Your task to perform on an android device: all mails in gmail Image 0: 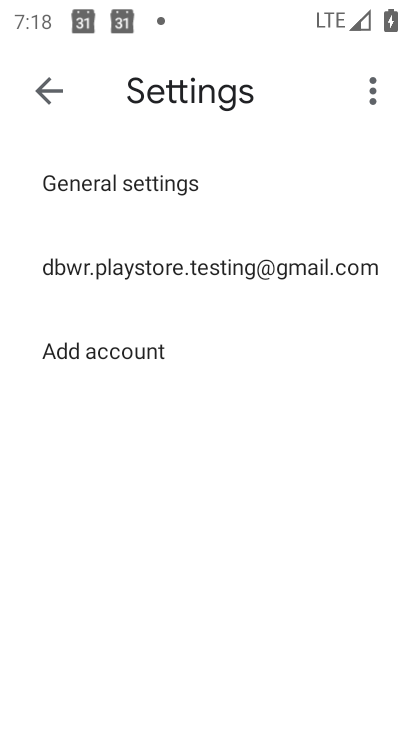
Step 0: press home button
Your task to perform on an android device: all mails in gmail Image 1: 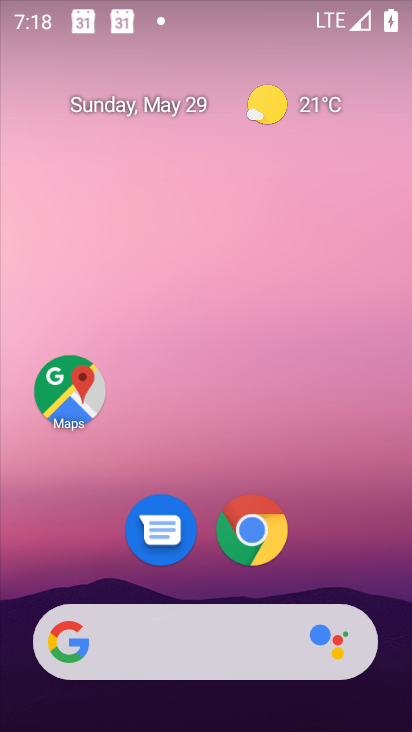
Step 1: drag from (255, 695) to (205, 141)
Your task to perform on an android device: all mails in gmail Image 2: 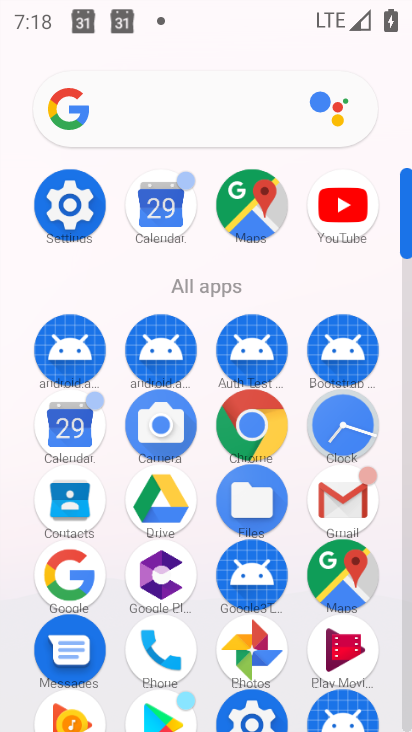
Step 2: click (353, 505)
Your task to perform on an android device: all mails in gmail Image 3: 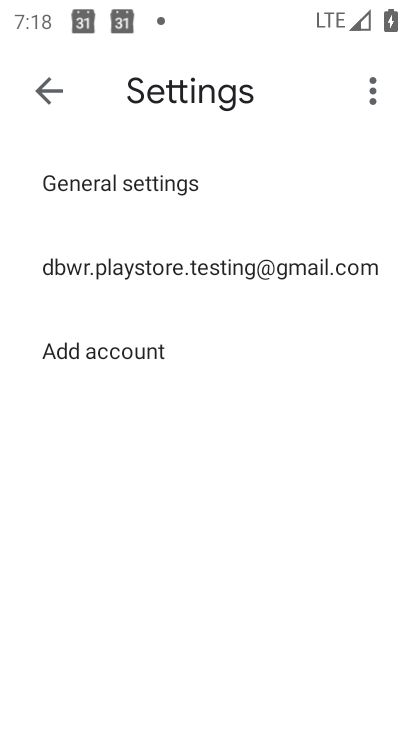
Step 3: click (52, 106)
Your task to perform on an android device: all mails in gmail Image 4: 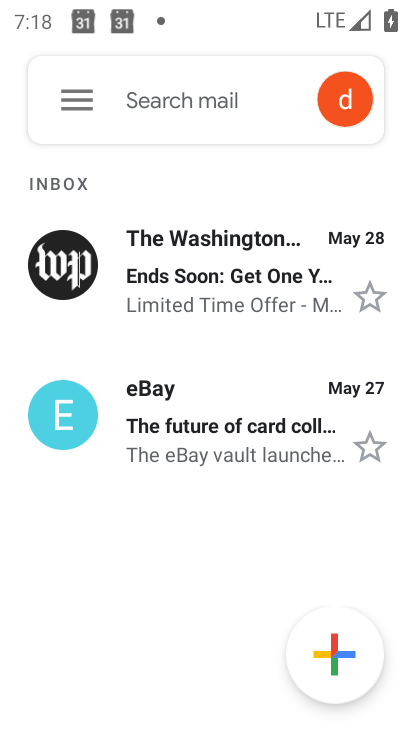
Step 4: click (75, 107)
Your task to perform on an android device: all mails in gmail Image 5: 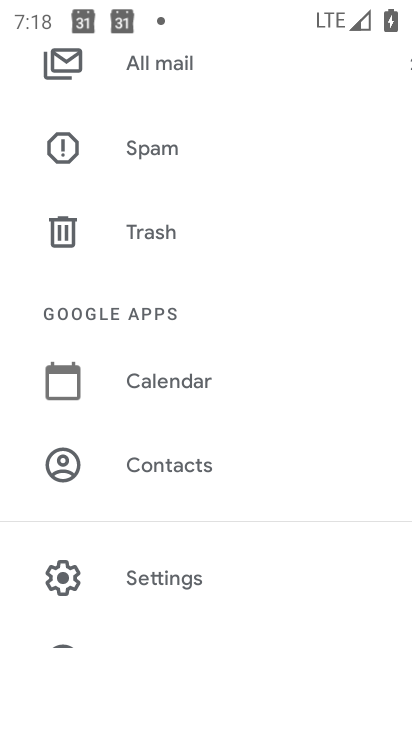
Step 5: click (184, 583)
Your task to perform on an android device: all mails in gmail Image 6: 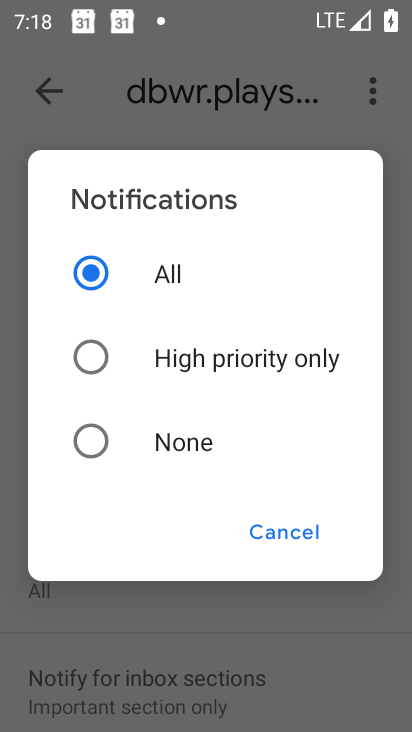
Step 6: click (288, 527)
Your task to perform on an android device: all mails in gmail Image 7: 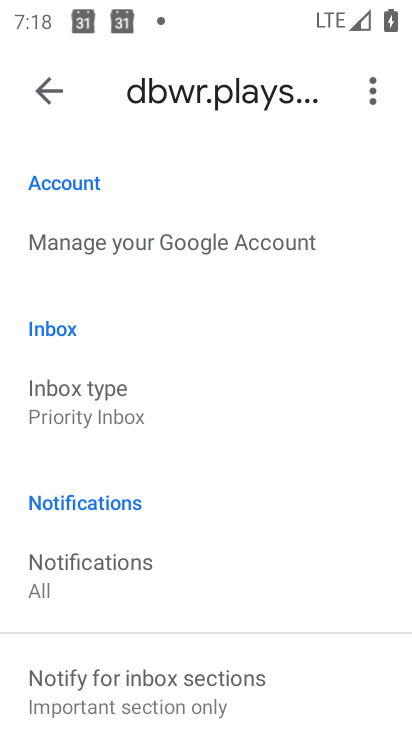
Step 7: click (52, 75)
Your task to perform on an android device: all mails in gmail Image 8: 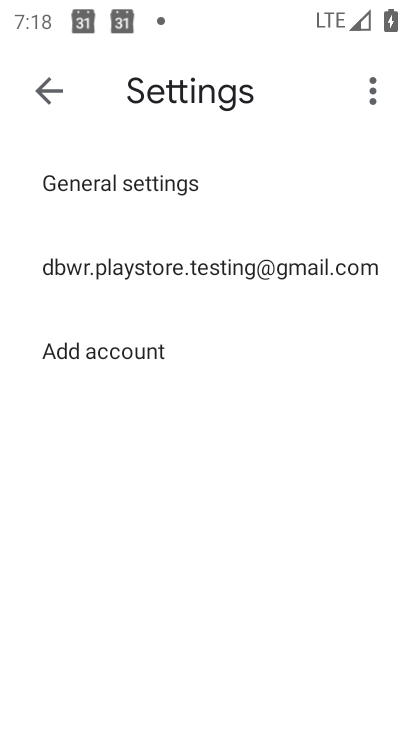
Step 8: click (52, 75)
Your task to perform on an android device: all mails in gmail Image 9: 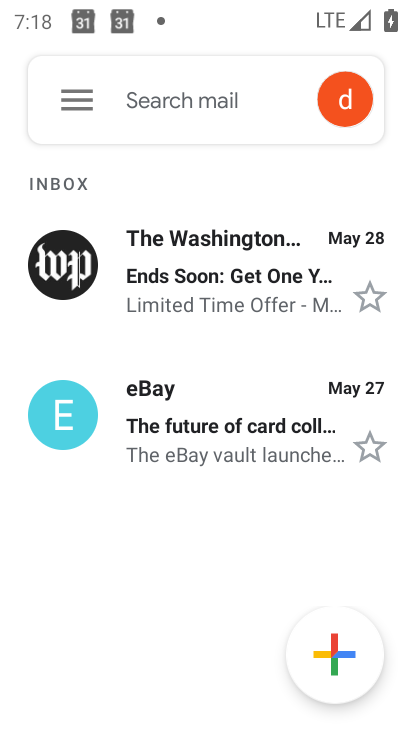
Step 9: click (87, 105)
Your task to perform on an android device: all mails in gmail Image 10: 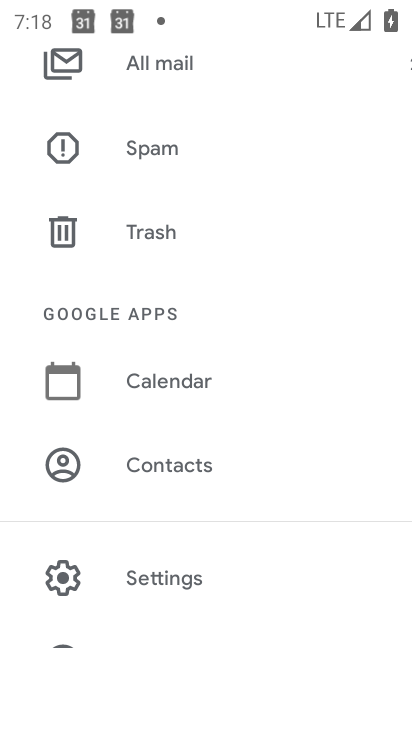
Step 10: click (165, 72)
Your task to perform on an android device: all mails in gmail Image 11: 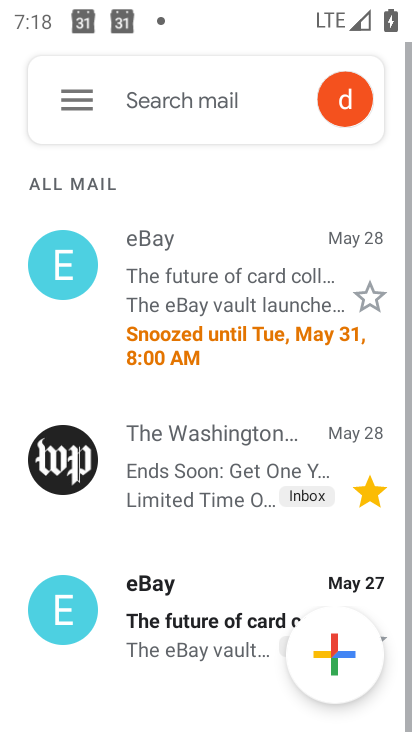
Step 11: task complete